Your task to perform on an android device: toggle priority inbox in the gmail app Image 0: 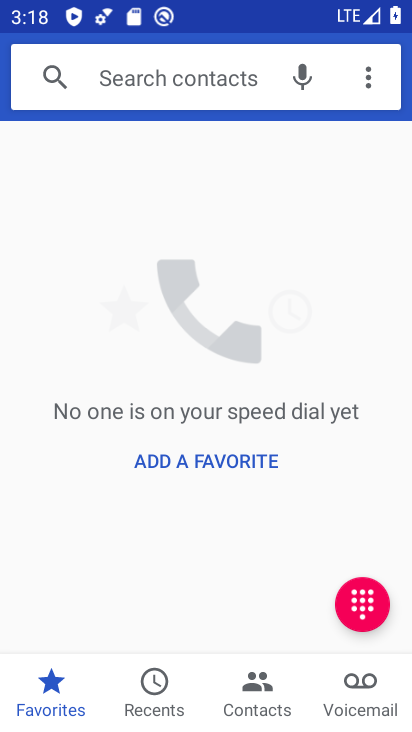
Step 0: drag from (234, 581) to (240, 231)
Your task to perform on an android device: toggle priority inbox in the gmail app Image 1: 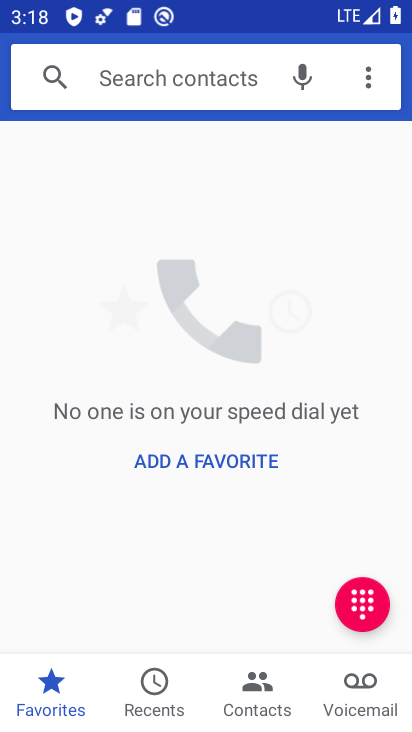
Step 1: press home button
Your task to perform on an android device: toggle priority inbox in the gmail app Image 2: 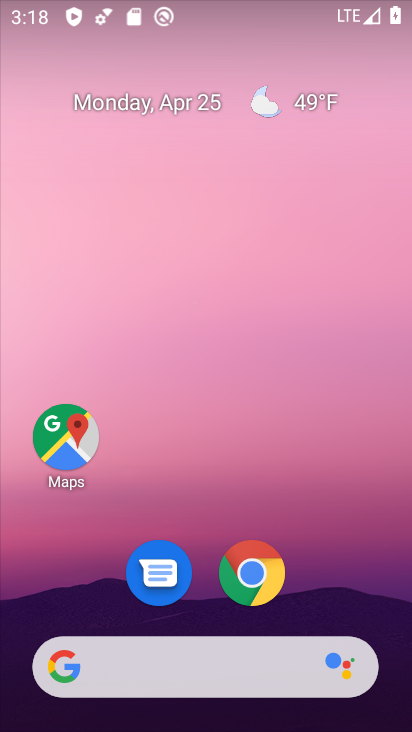
Step 2: drag from (341, 452) to (230, 1)
Your task to perform on an android device: toggle priority inbox in the gmail app Image 3: 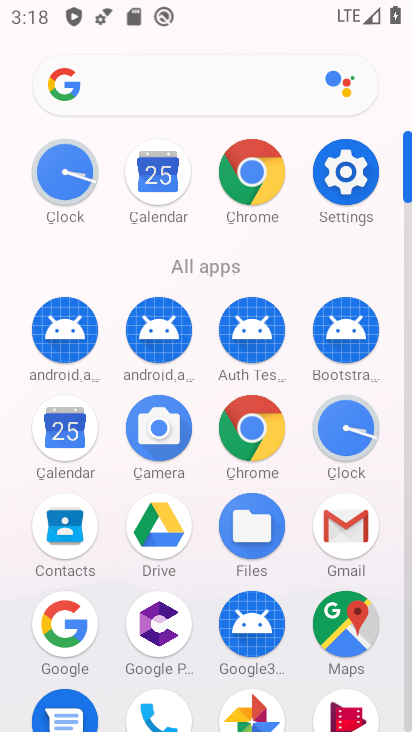
Step 3: click (343, 504)
Your task to perform on an android device: toggle priority inbox in the gmail app Image 4: 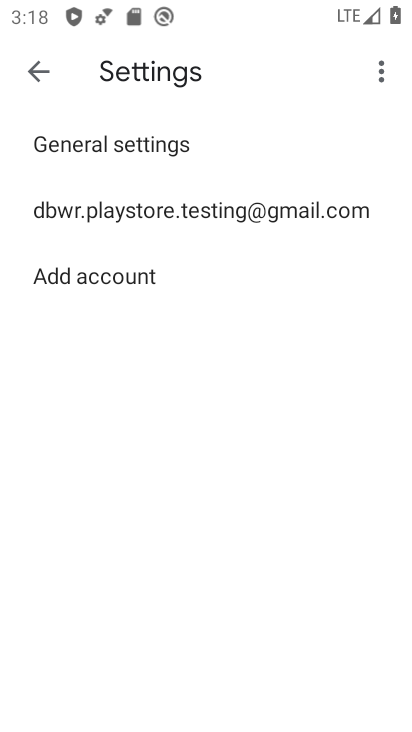
Step 4: click (194, 208)
Your task to perform on an android device: toggle priority inbox in the gmail app Image 5: 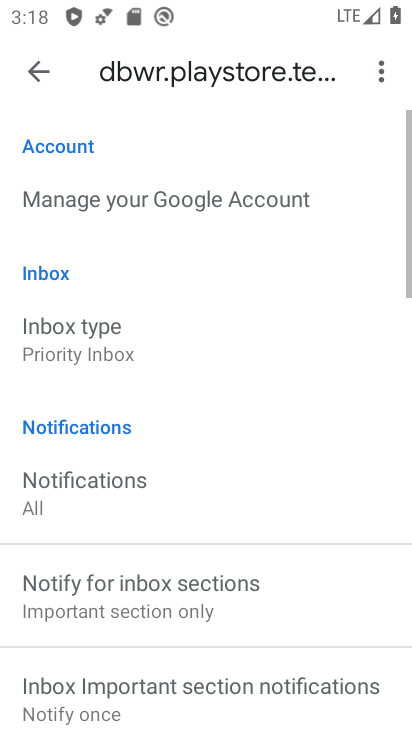
Step 5: click (102, 326)
Your task to perform on an android device: toggle priority inbox in the gmail app Image 6: 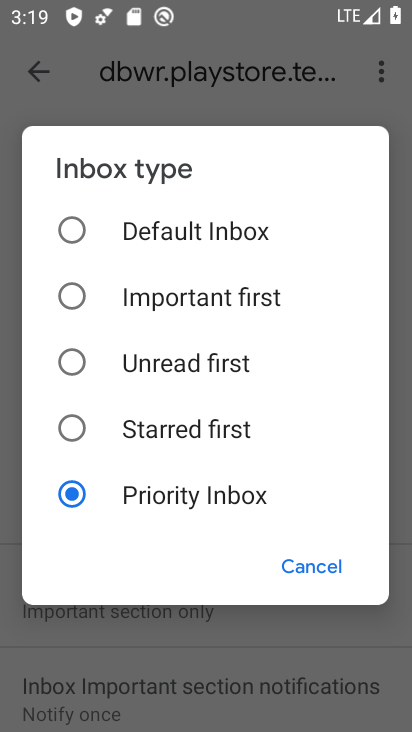
Step 6: click (70, 219)
Your task to perform on an android device: toggle priority inbox in the gmail app Image 7: 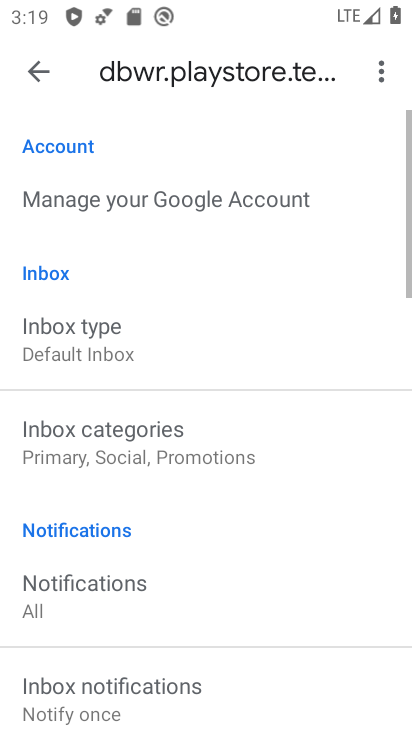
Step 7: task complete